Your task to perform on an android device: What is the news today? Image 0: 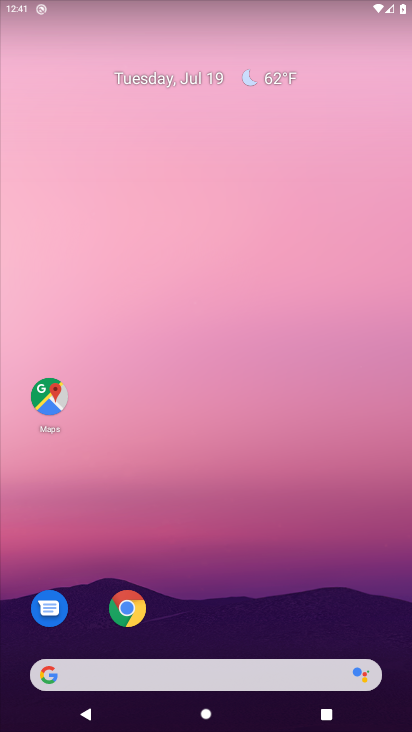
Step 0: press home button
Your task to perform on an android device: What is the news today? Image 1: 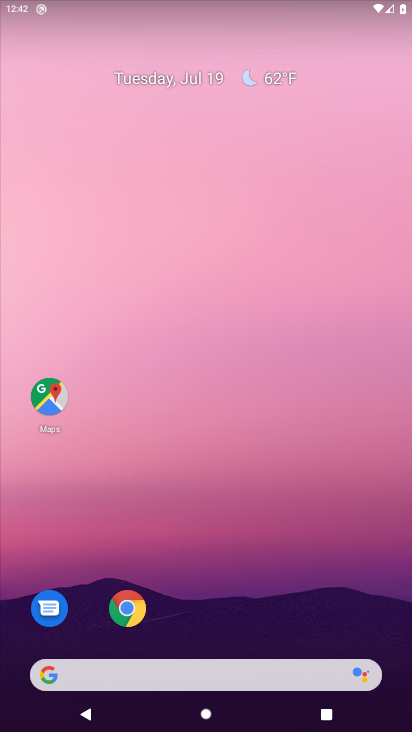
Step 1: task complete